Your task to perform on an android device: delete browsing data in the chrome app Image 0: 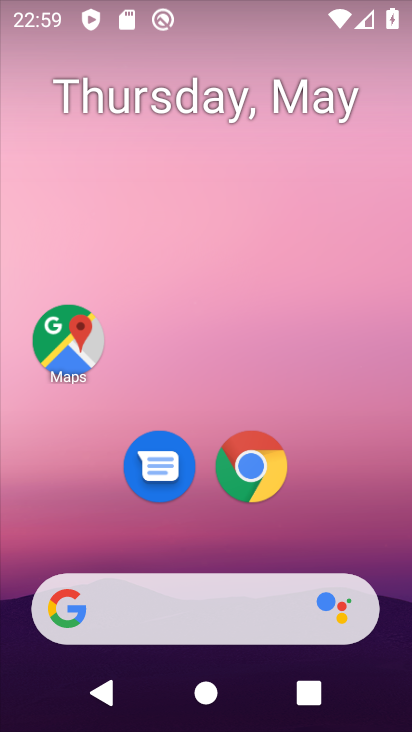
Step 0: click (259, 449)
Your task to perform on an android device: delete browsing data in the chrome app Image 1: 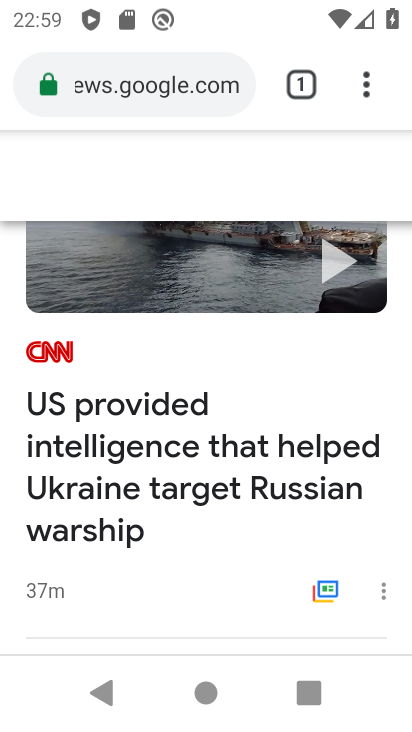
Step 1: click (366, 81)
Your task to perform on an android device: delete browsing data in the chrome app Image 2: 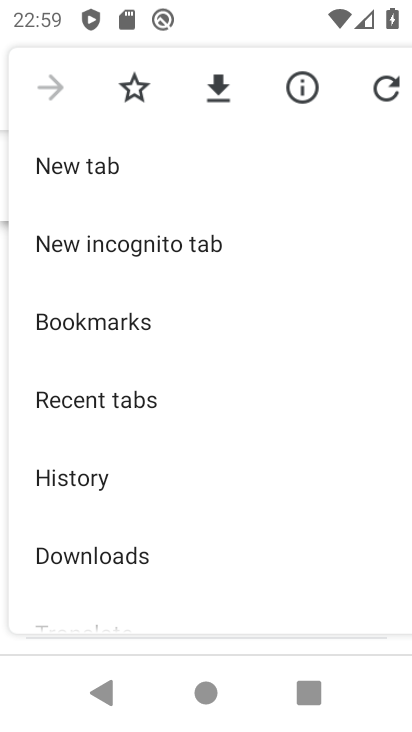
Step 2: drag from (200, 495) to (164, 256)
Your task to perform on an android device: delete browsing data in the chrome app Image 3: 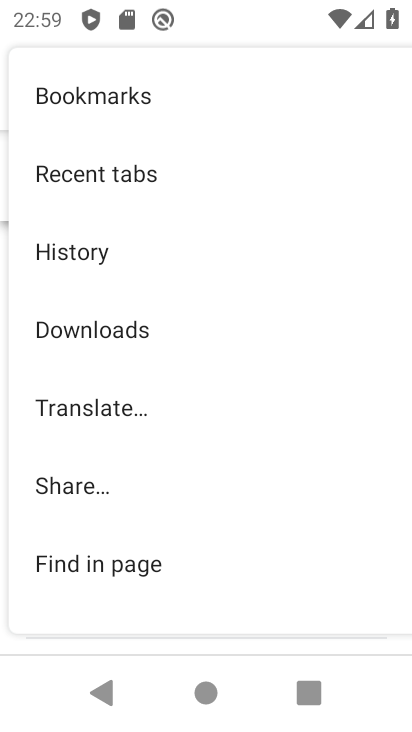
Step 3: click (98, 264)
Your task to perform on an android device: delete browsing data in the chrome app Image 4: 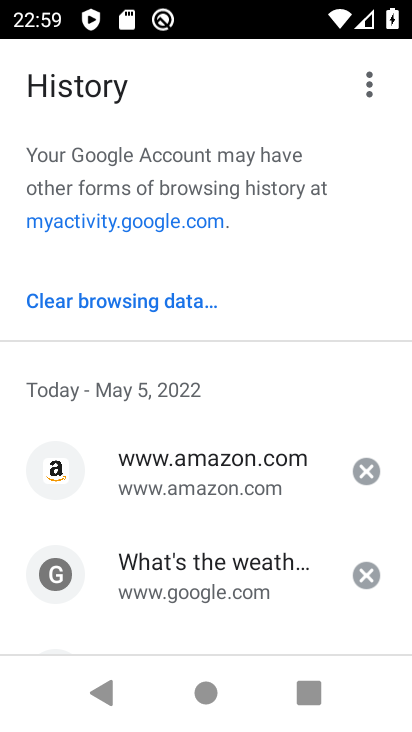
Step 4: click (158, 303)
Your task to perform on an android device: delete browsing data in the chrome app Image 5: 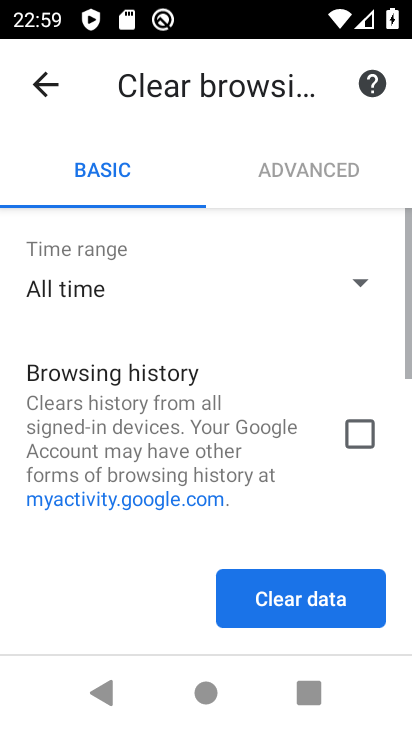
Step 5: click (324, 589)
Your task to perform on an android device: delete browsing data in the chrome app Image 6: 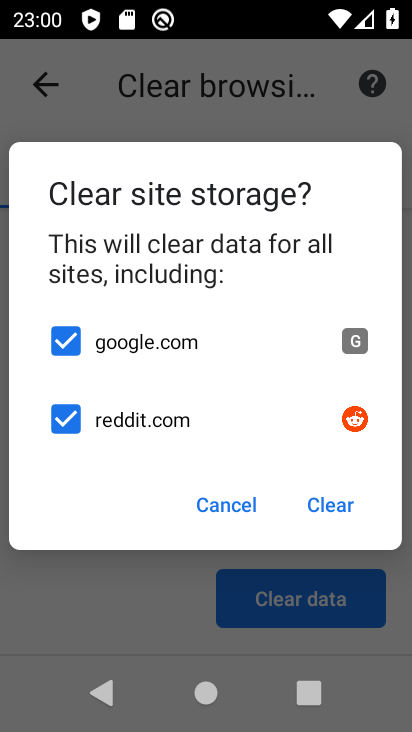
Step 6: click (327, 508)
Your task to perform on an android device: delete browsing data in the chrome app Image 7: 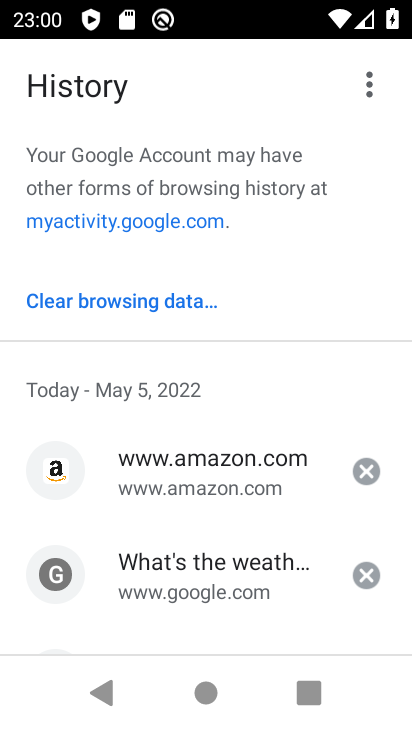
Step 7: click (189, 298)
Your task to perform on an android device: delete browsing data in the chrome app Image 8: 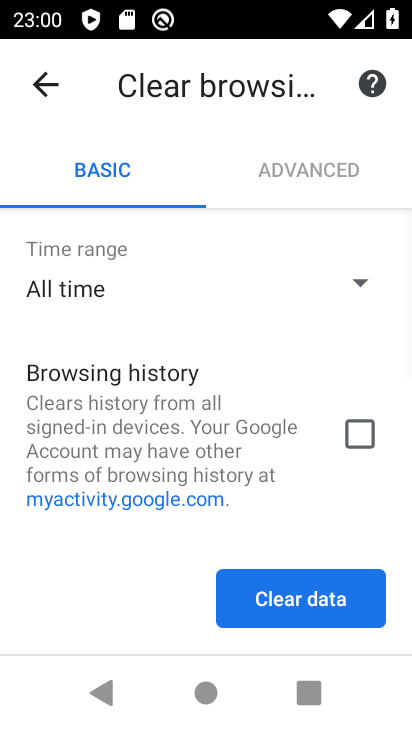
Step 8: click (350, 592)
Your task to perform on an android device: delete browsing data in the chrome app Image 9: 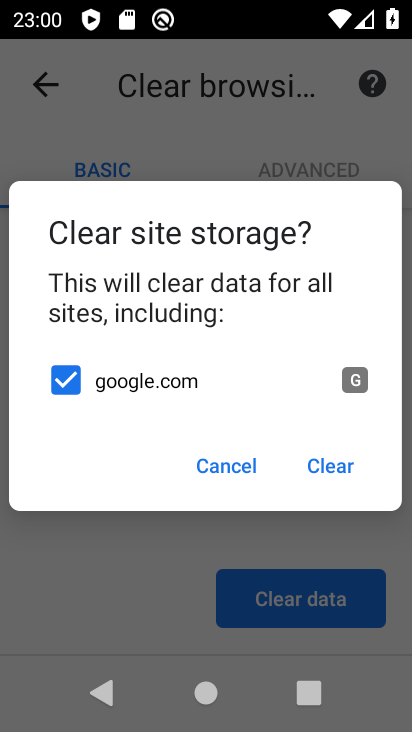
Step 9: click (324, 472)
Your task to perform on an android device: delete browsing data in the chrome app Image 10: 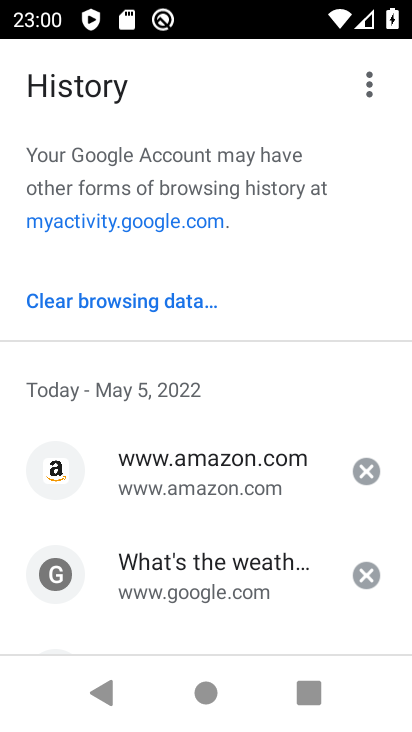
Step 10: click (194, 305)
Your task to perform on an android device: delete browsing data in the chrome app Image 11: 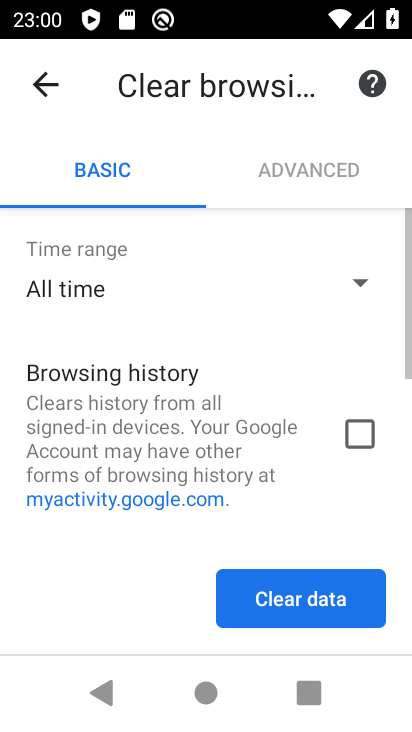
Step 11: click (372, 434)
Your task to perform on an android device: delete browsing data in the chrome app Image 12: 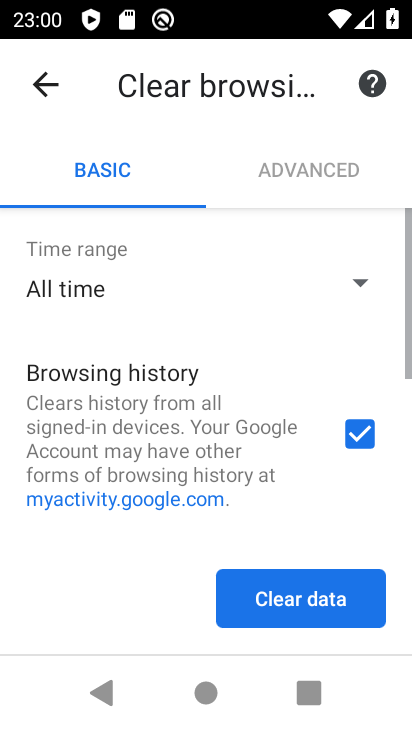
Step 12: click (338, 606)
Your task to perform on an android device: delete browsing data in the chrome app Image 13: 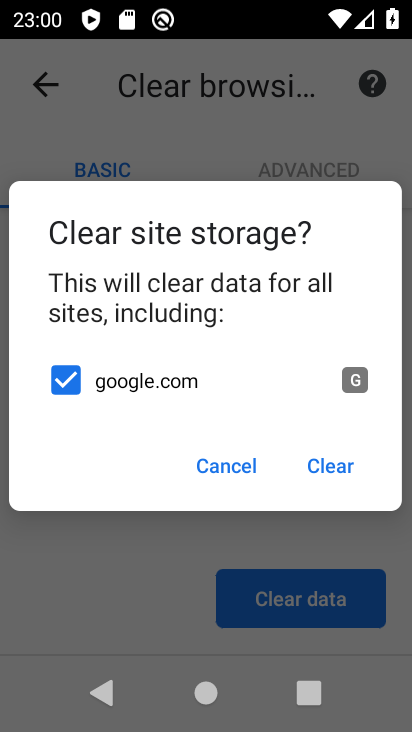
Step 13: click (341, 457)
Your task to perform on an android device: delete browsing data in the chrome app Image 14: 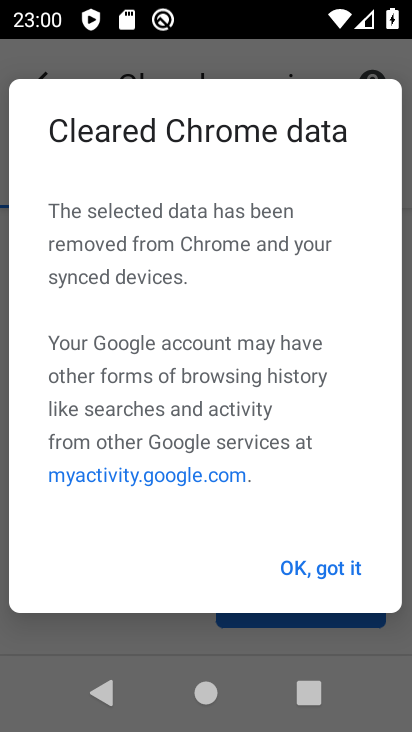
Step 14: task complete